Your task to perform on an android device: stop showing notifications on the lock screen Image 0: 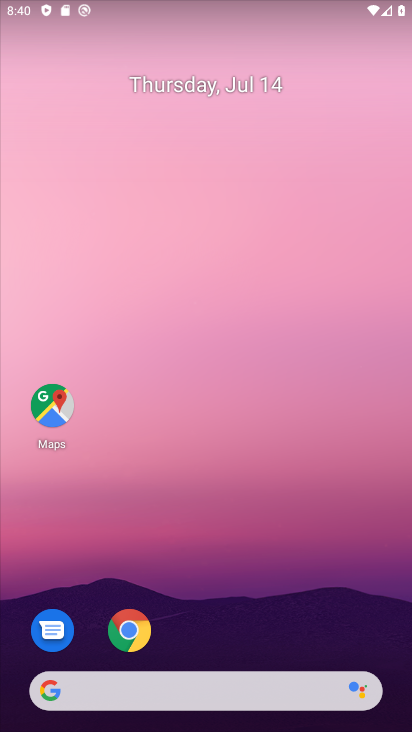
Step 0: drag from (354, 567) to (356, 87)
Your task to perform on an android device: stop showing notifications on the lock screen Image 1: 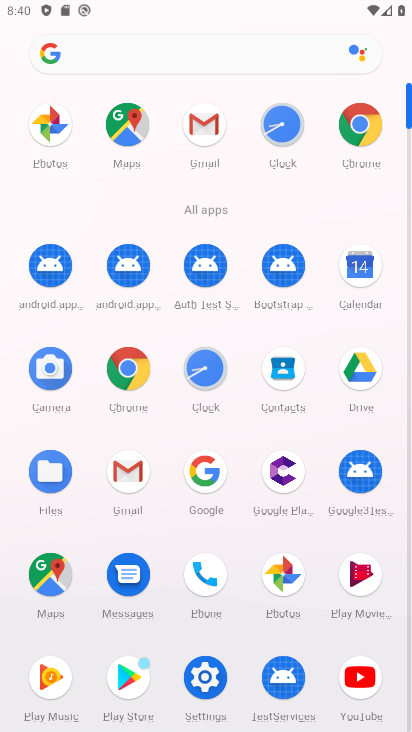
Step 1: click (203, 663)
Your task to perform on an android device: stop showing notifications on the lock screen Image 2: 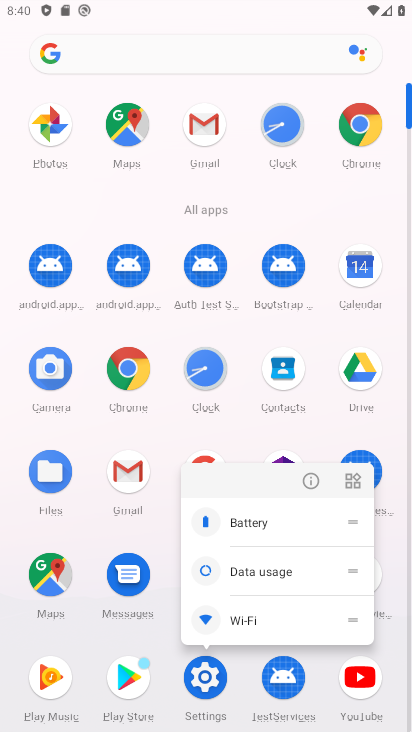
Step 2: click (212, 671)
Your task to perform on an android device: stop showing notifications on the lock screen Image 3: 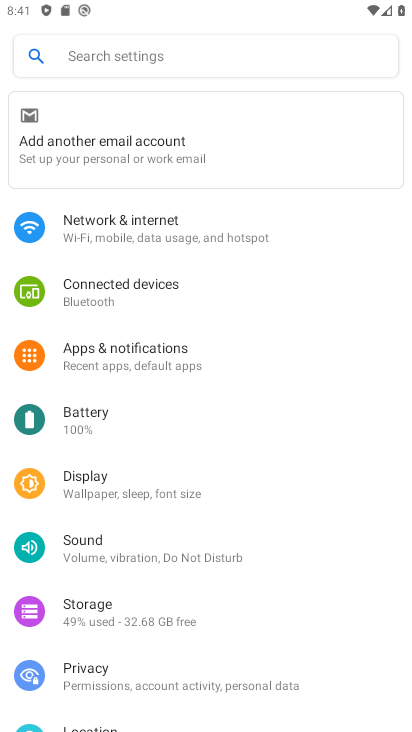
Step 3: click (133, 354)
Your task to perform on an android device: stop showing notifications on the lock screen Image 4: 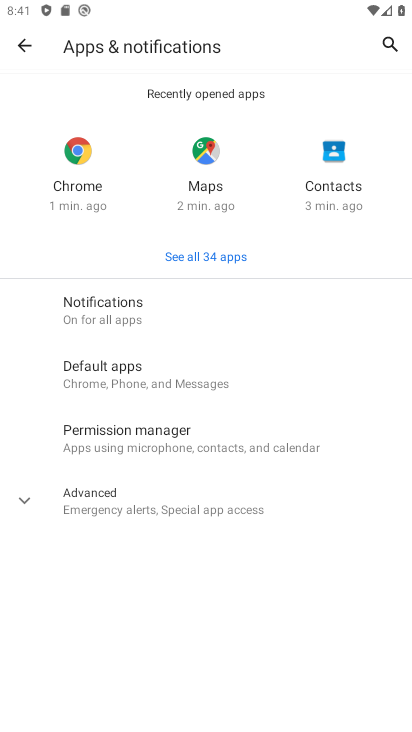
Step 4: click (134, 502)
Your task to perform on an android device: stop showing notifications on the lock screen Image 5: 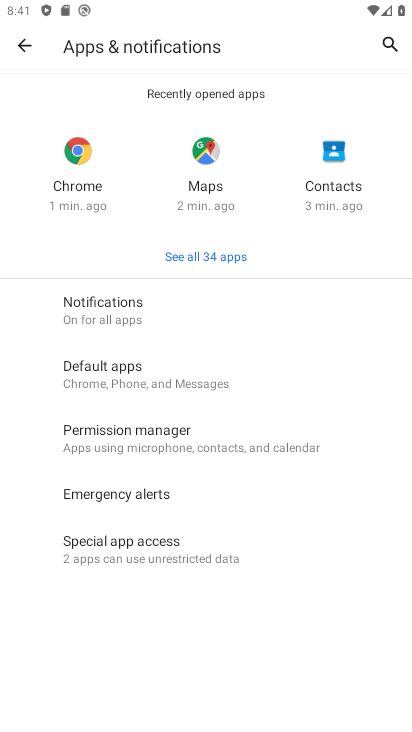
Step 5: click (120, 300)
Your task to perform on an android device: stop showing notifications on the lock screen Image 6: 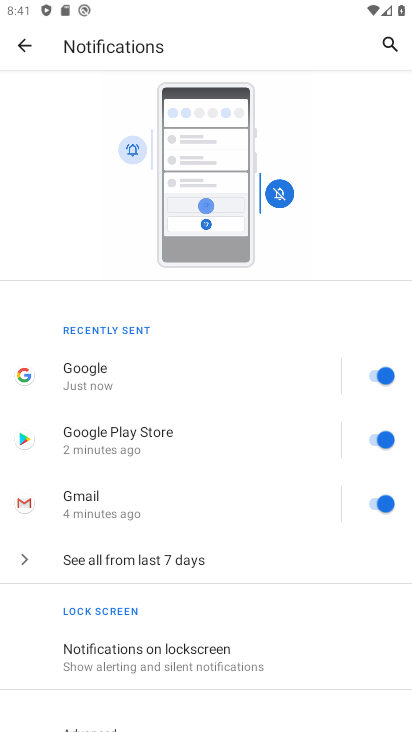
Step 6: click (180, 666)
Your task to perform on an android device: stop showing notifications on the lock screen Image 7: 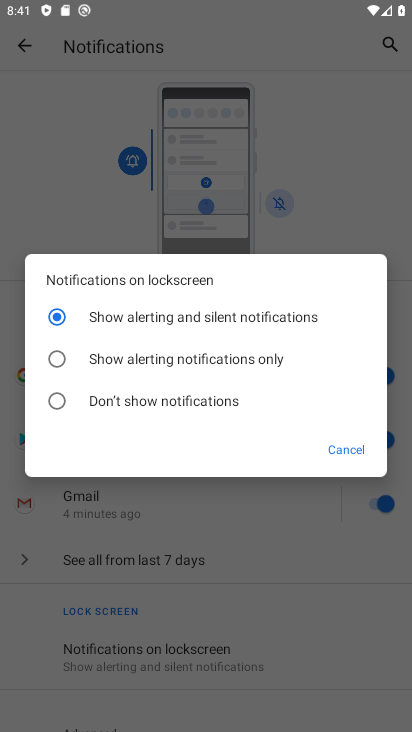
Step 7: click (128, 403)
Your task to perform on an android device: stop showing notifications on the lock screen Image 8: 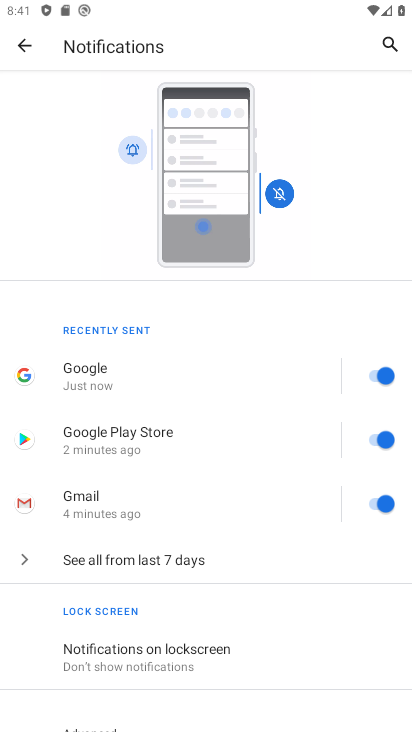
Step 8: task complete